Your task to perform on an android device: Open accessibility settings Image 0: 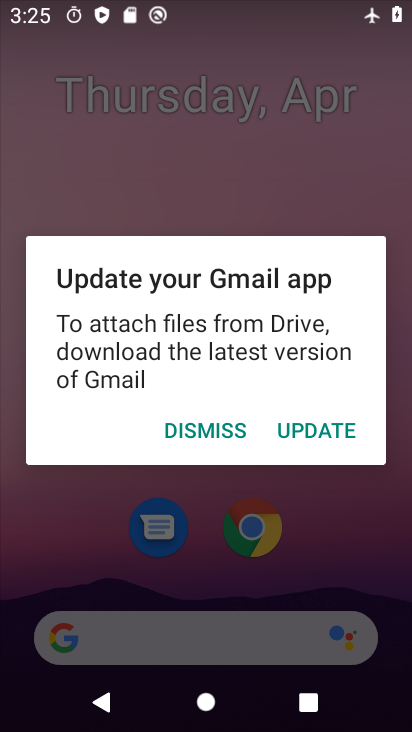
Step 0: press home button
Your task to perform on an android device: Open accessibility settings Image 1: 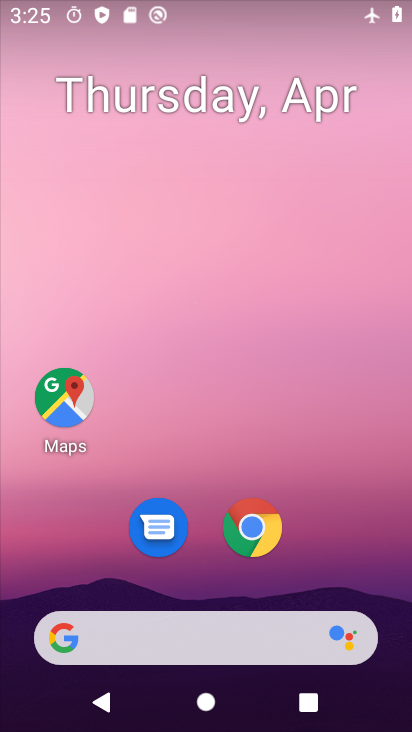
Step 1: drag from (307, 569) to (294, 177)
Your task to perform on an android device: Open accessibility settings Image 2: 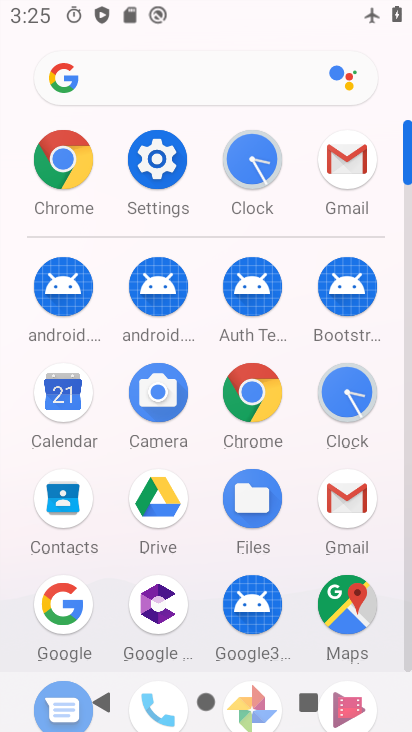
Step 2: click (161, 159)
Your task to perform on an android device: Open accessibility settings Image 3: 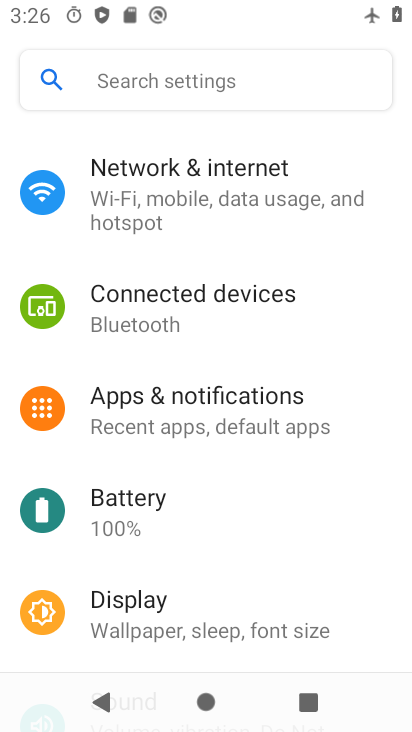
Step 3: drag from (206, 600) to (194, 197)
Your task to perform on an android device: Open accessibility settings Image 4: 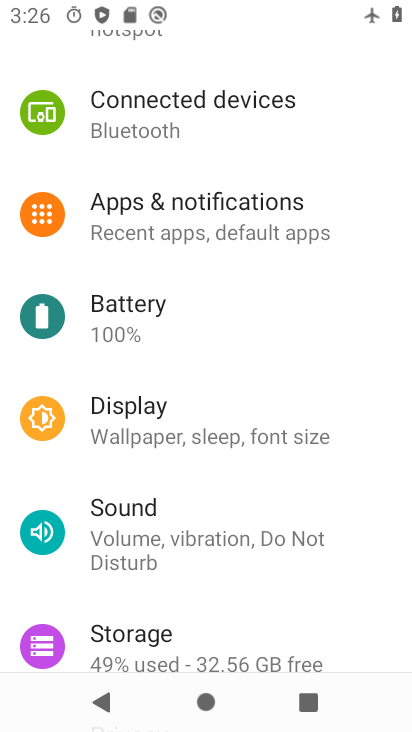
Step 4: drag from (263, 570) to (233, 233)
Your task to perform on an android device: Open accessibility settings Image 5: 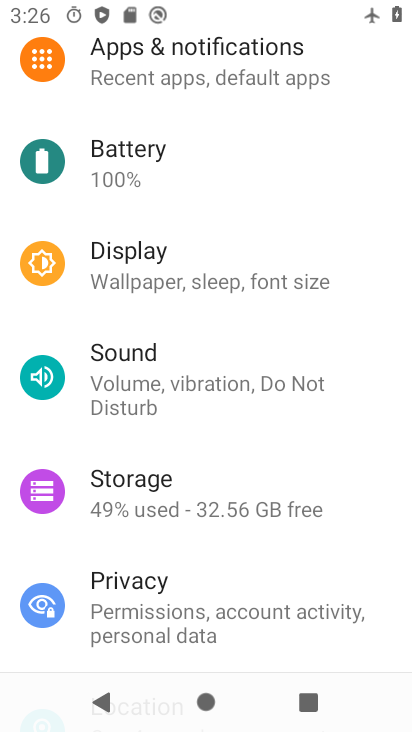
Step 5: drag from (248, 698) to (237, 353)
Your task to perform on an android device: Open accessibility settings Image 6: 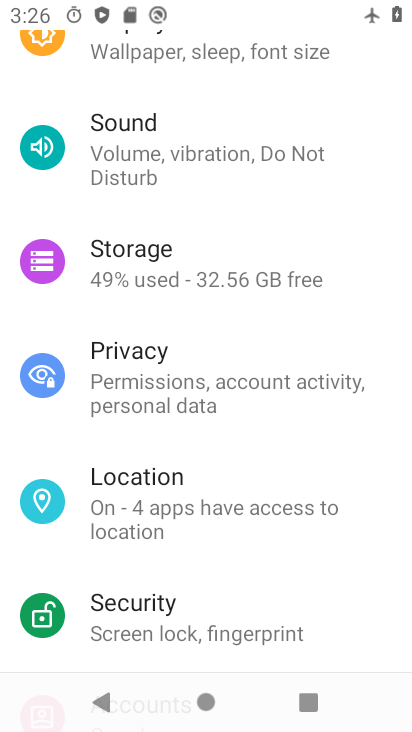
Step 6: drag from (202, 425) to (205, 69)
Your task to perform on an android device: Open accessibility settings Image 7: 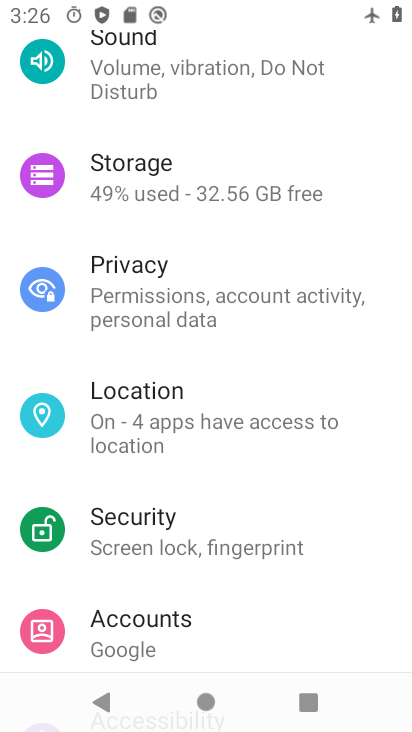
Step 7: drag from (164, 500) to (238, 95)
Your task to perform on an android device: Open accessibility settings Image 8: 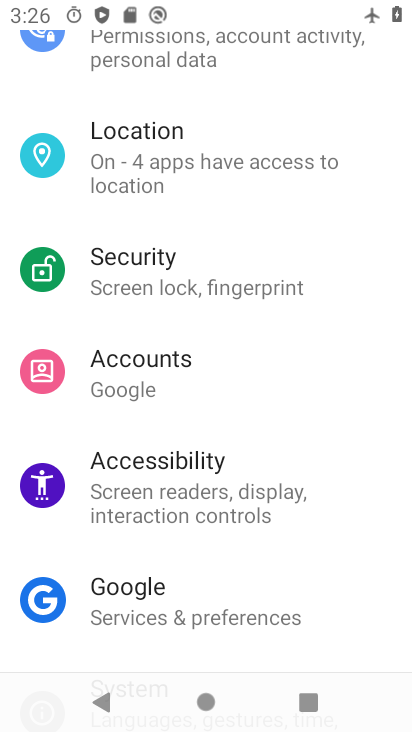
Step 8: click (172, 460)
Your task to perform on an android device: Open accessibility settings Image 9: 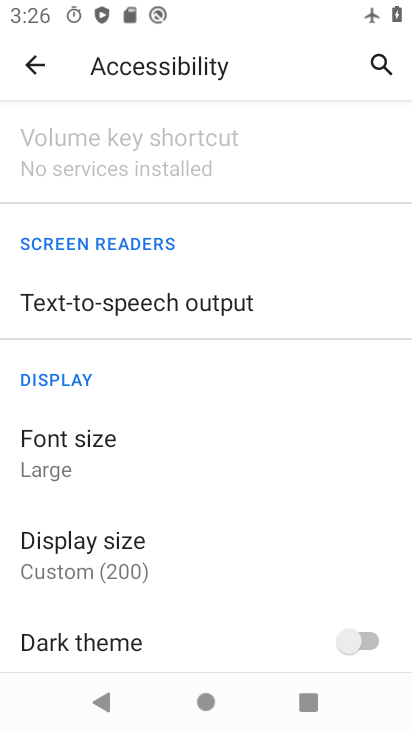
Step 9: task complete